Your task to perform on an android device: Open settings on Google Maps Image 0: 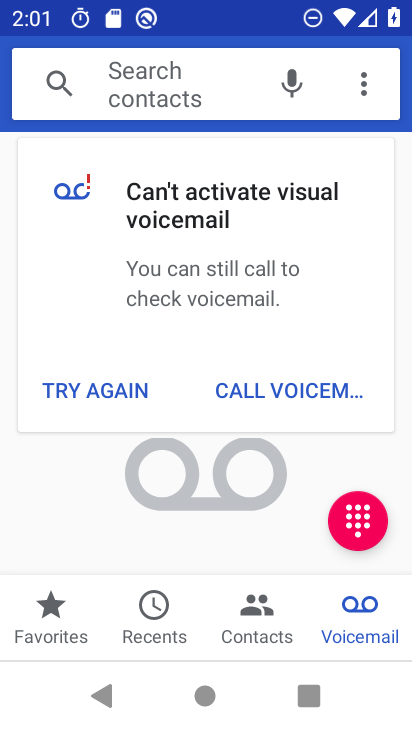
Step 0: press home button
Your task to perform on an android device: Open settings on Google Maps Image 1: 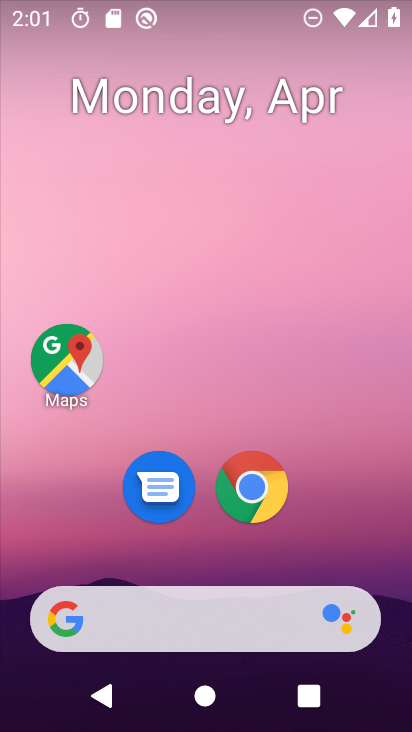
Step 1: drag from (303, 644) to (356, 265)
Your task to perform on an android device: Open settings on Google Maps Image 2: 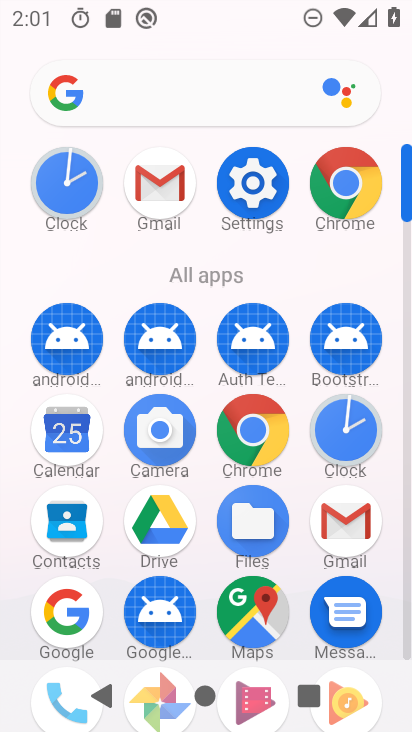
Step 2: click (263, 606)
Your task to perform on an android device: Open settings on Google Maps Image 3: 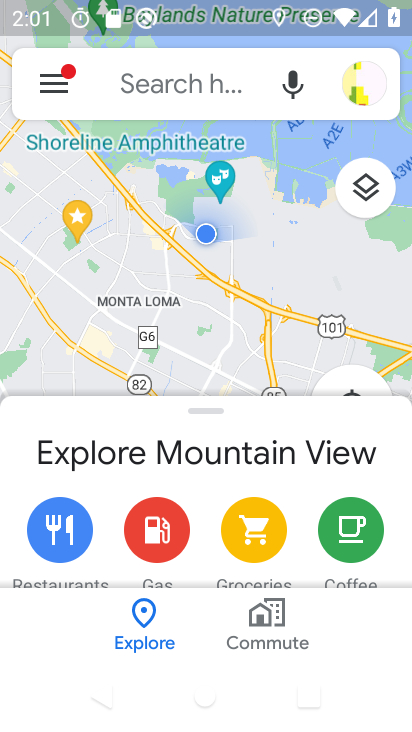
Step 3: click (53, 92)
Your task to perform on an android device: Open settings on Google Maps Image 4: 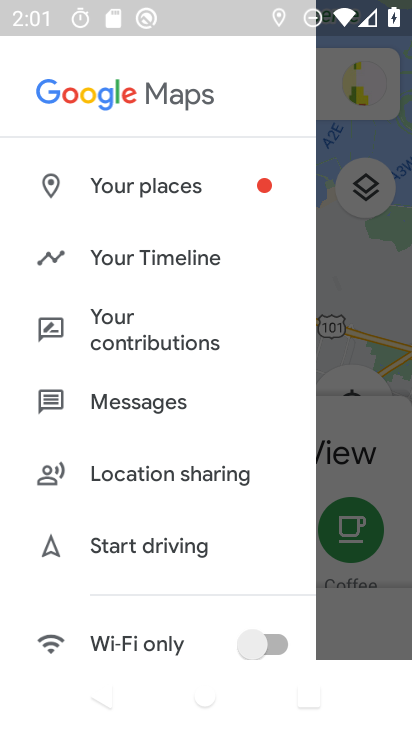
Step 4: drag from (69, 530) to (232, 216)
Your task to perform on an android device: Open settings on Google Maps Image 5: 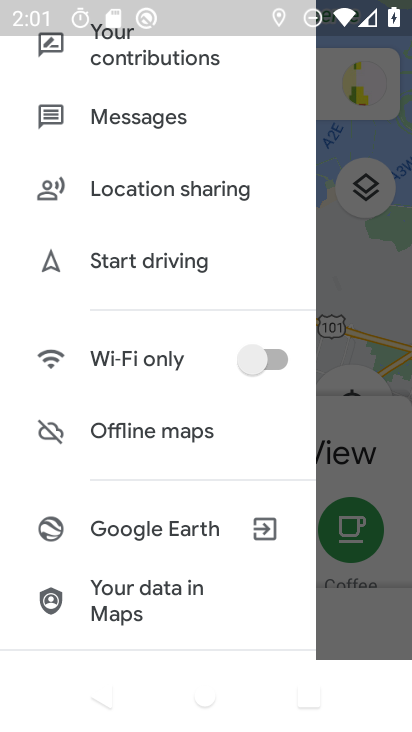
Step 5: drag from (125, 540) to (258, 237)
Your task to perform on an android device: Open settings on Google Maps Image 6: 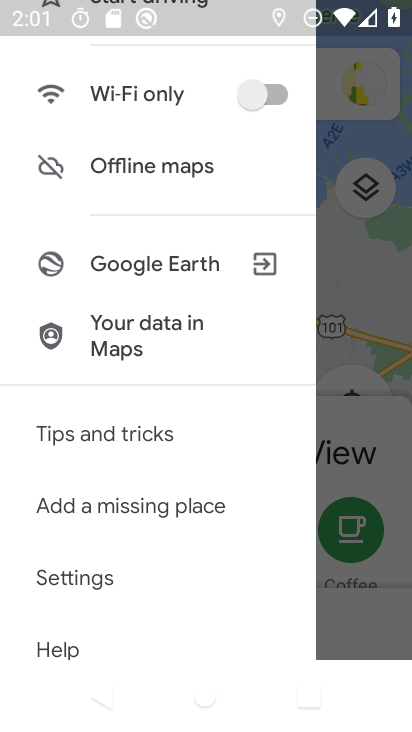
Step 6: click (68, 586)
Your task to perform on an android device: Open settings on Google Maps Image 7: 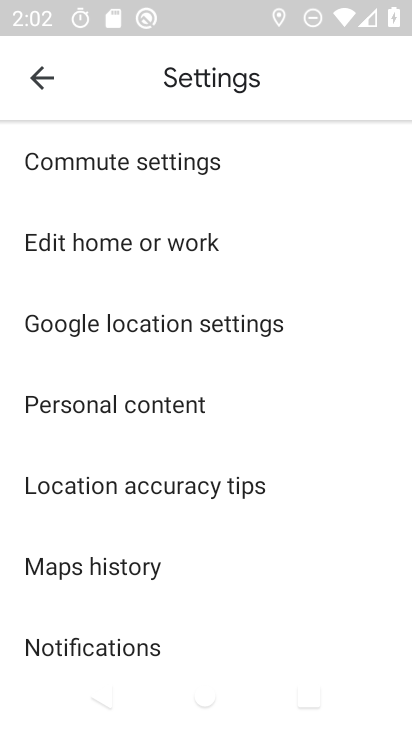
Step 7: task complete